Your task to perform on an android device: change notifications settings Image 0: 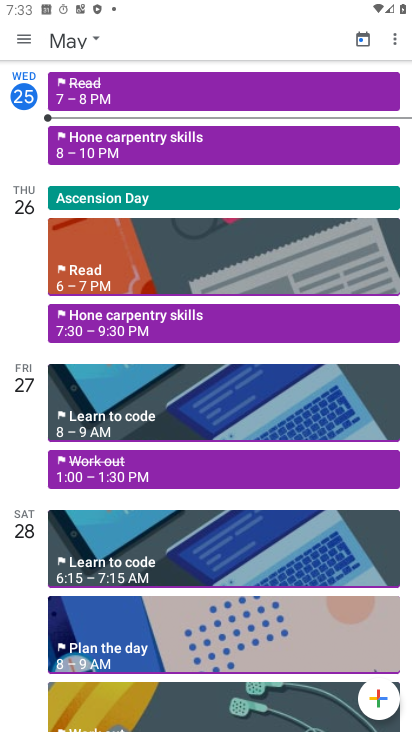
Step 0: press home button
Your task to perform on an android device: change notifications settings Image 1: 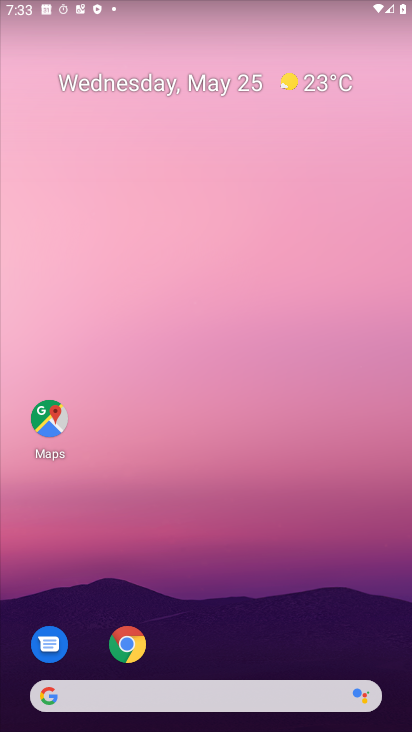
Step 1: drag from (183, 719) to (251, 277)
Your task to perform on an android device: change notifications settings Image 2: 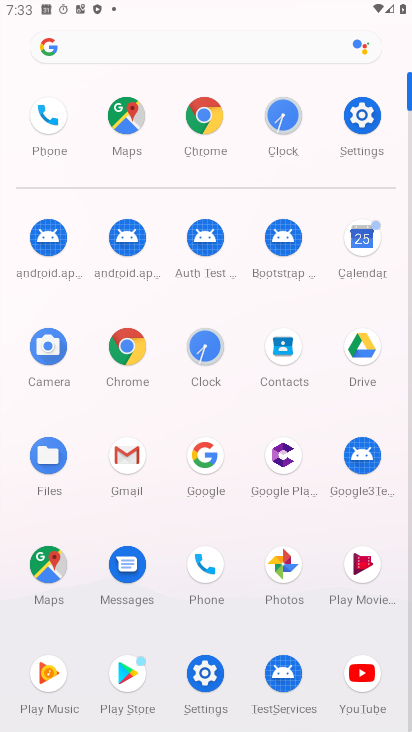
Step 2: click (367, 104)
Your task to perform on an android device: change notifications settings Image 3: 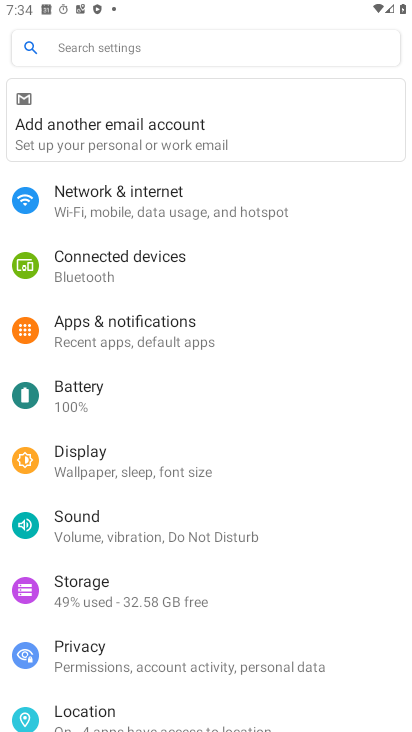
Step 3: click (184, 38)
Your task to perform on an android device: change notifications settings Image 4: 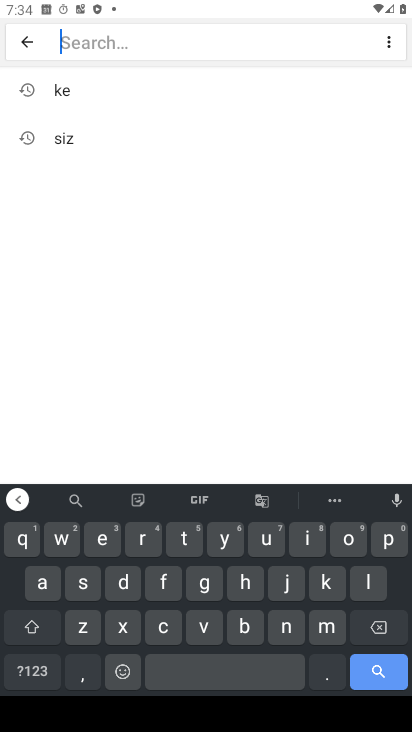
Step 4: click (277, 629)
Your task to perform on an android device: change notifications settings Image 5: 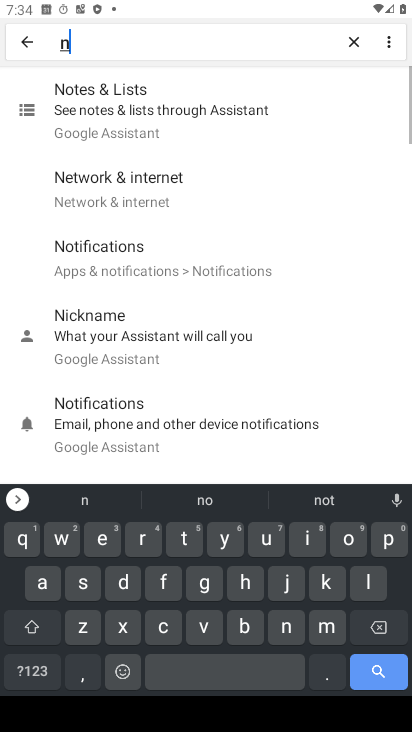
Step 5: click (350, 537)
Your task to perform on an android device: change notifications settings Image 6: 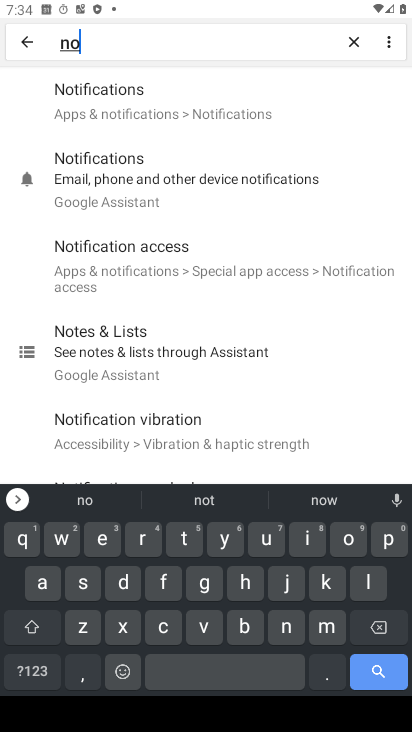
Step 6: click (115, 90)
Your task to perform on an android device: change notifications settings Image 7: 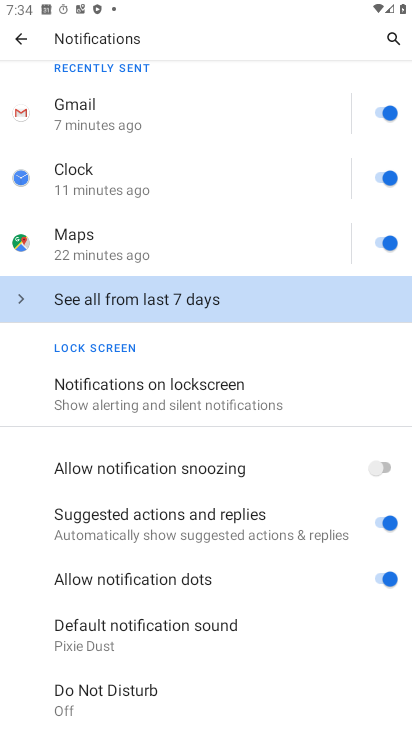
Step 7: click (158, 384)
Your task to perform on an android device: change notifications settings Image 8: 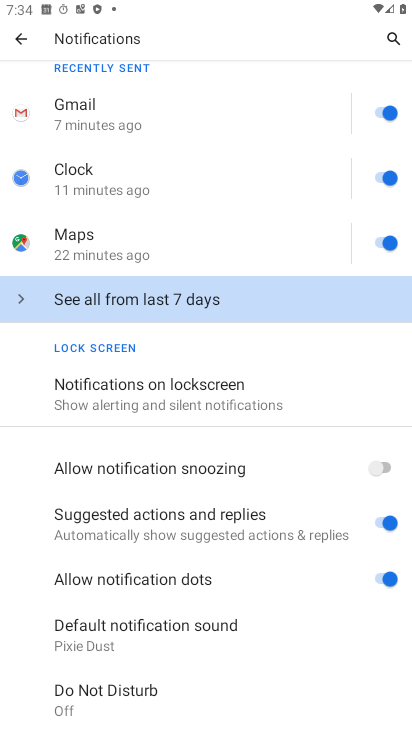
Step 8: click (148, 398)
Your task to perform on an android device: change notifications settings Image 9: 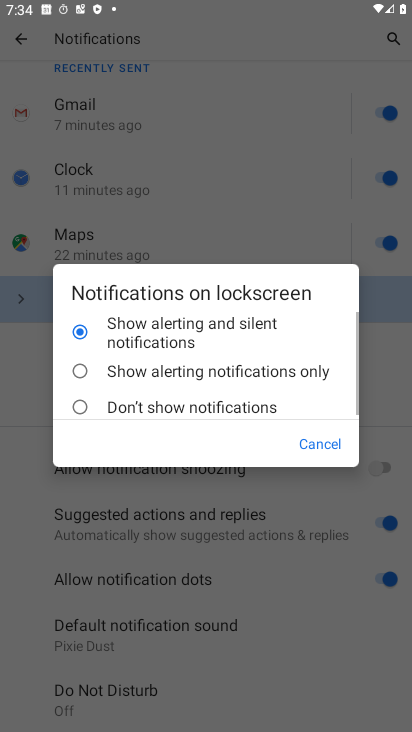
Step 9: click (140, 363)
Your task to perform on an android device: change notifications settings Image 10: 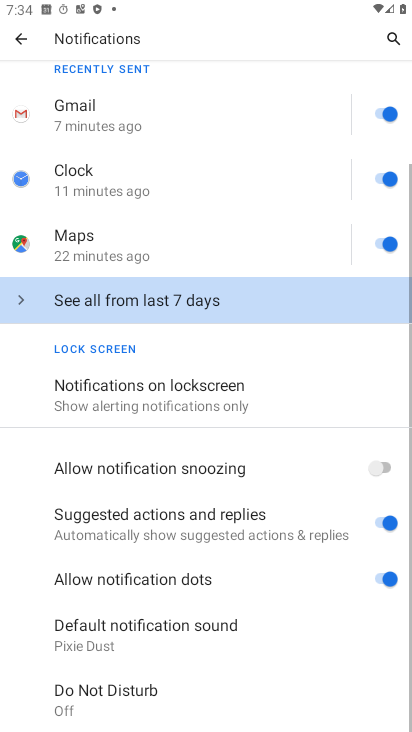
Step 10: task complete